Your task to perform on an android device: find snoozed emails in the gmail app Image 0: 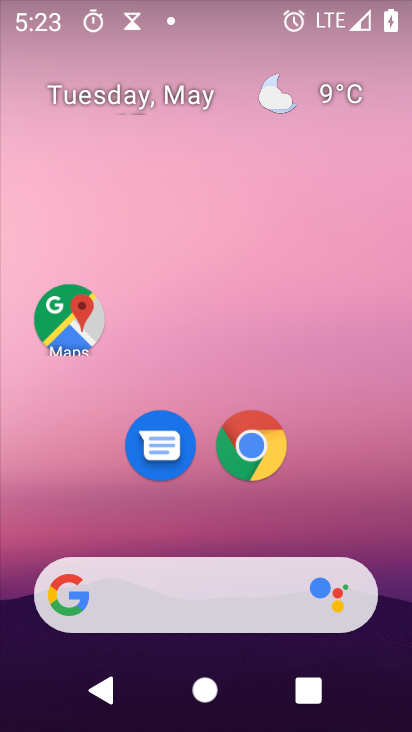
Step 0: drag from (361, 574) to (355, 3)
Your task to perform on an android device: find snoozed emails in the gmail app Image 1: 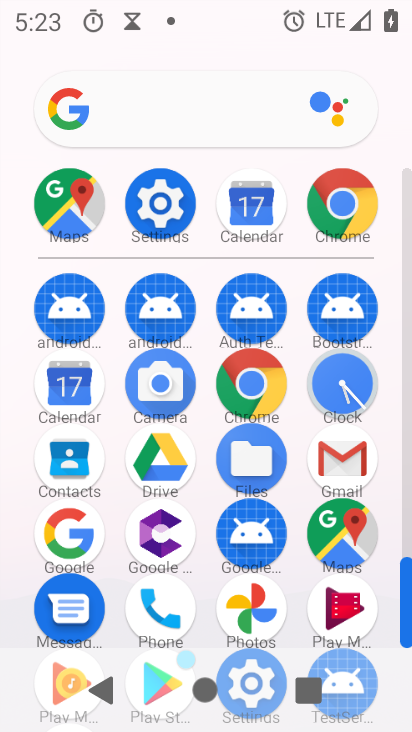
Step 1: click (365, 452)
Your task to perform on an android device: find snoozed emails in the gmail app Image 2: 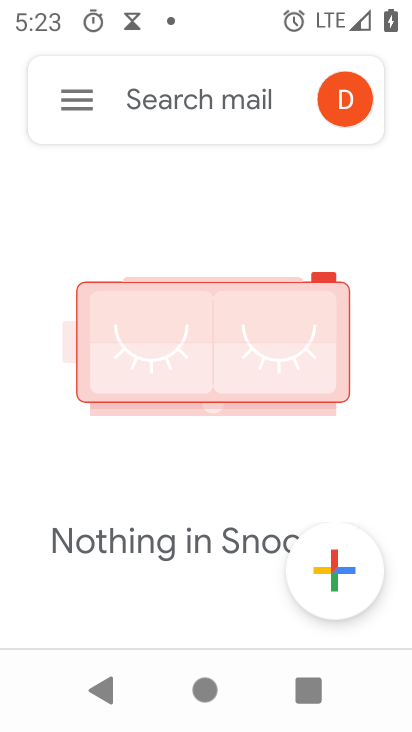
Step 2: click (69, 103)
Your task to perform on an android device: find snoozed emails in the gmail app Image 3: 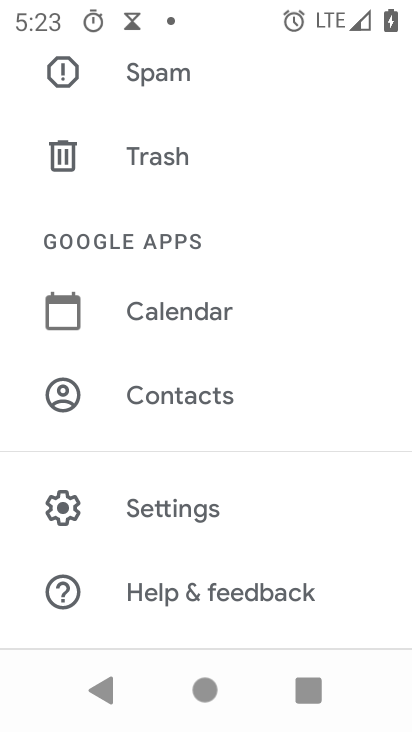
Step 3: drag from (221, 249) to (281, 650)
Your task to perform on an android device: find snoozed emails in the gmail app Image 4: 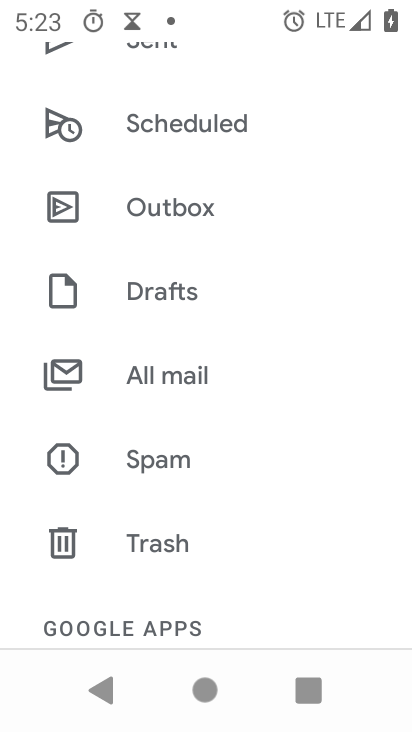
Step 4: drag from (231, 267) to (260, 559)
Your task to perform on an android device: find snoozed emails in the gmail app Image 5: 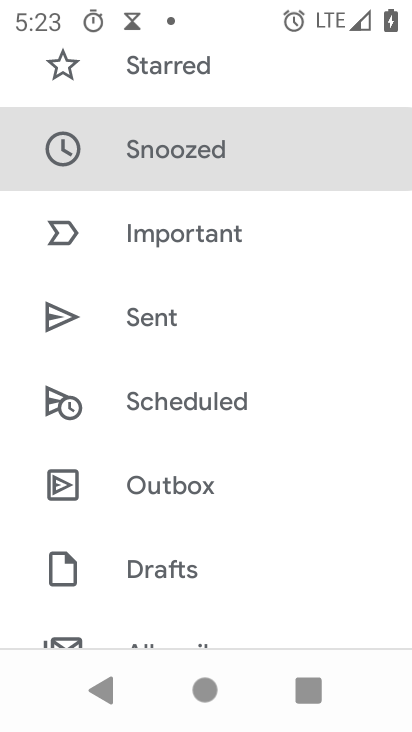
Step 5: click (176, 139)
Your task to perform on an android device: find snoozed emails in the gmail app Image 6: 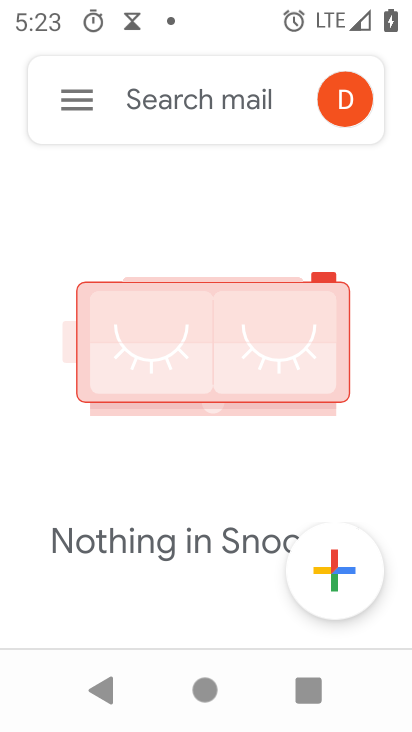
Step 6: task complete